Your task to perform on an android device: install app "Booking.com: Hotels and more" Image 0: 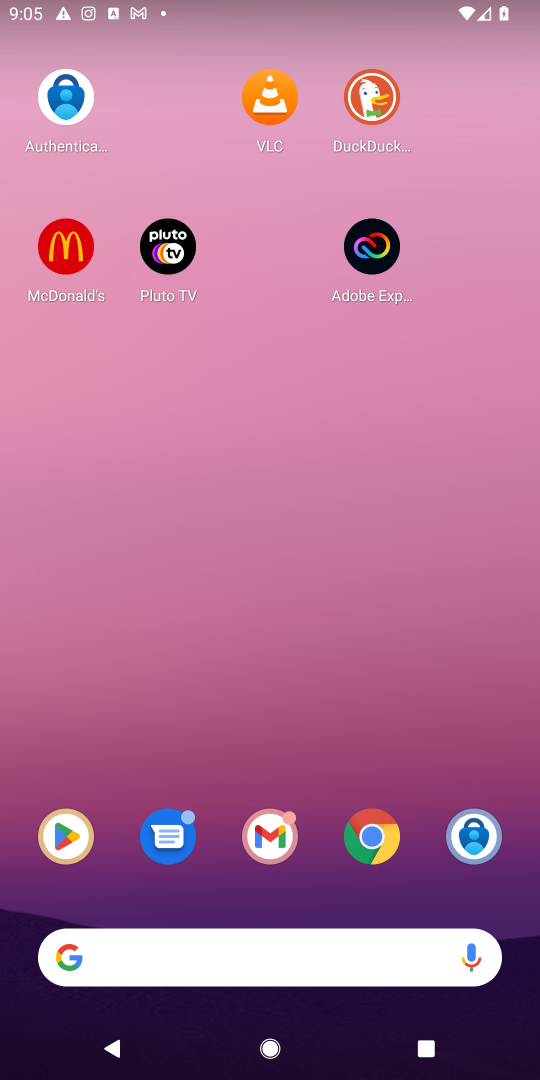
Step 0: click (67, 835)
Your task to perform on an android device: install app "Booking.com: Hotels and more" Image 1: 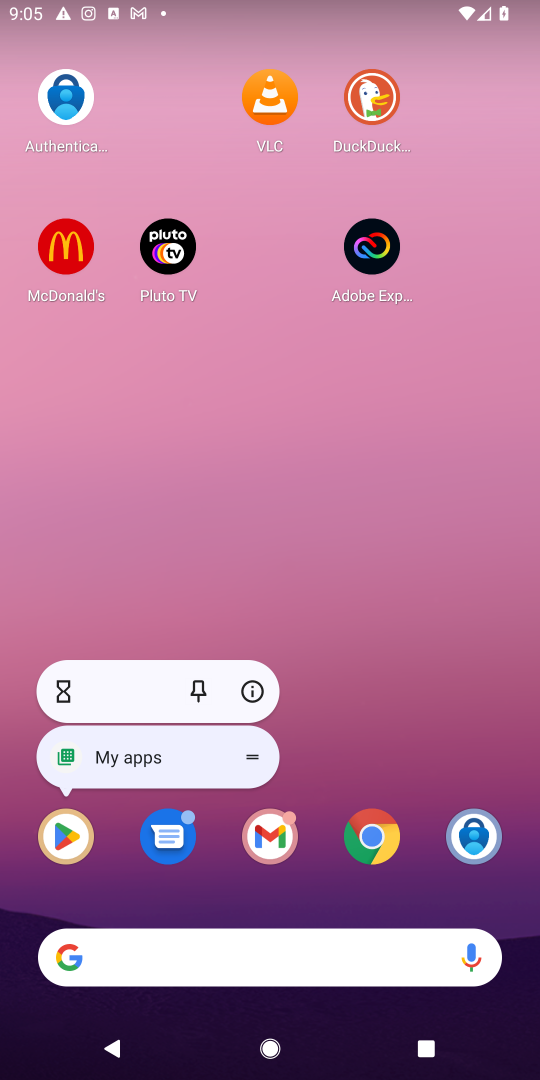
Step 1: click (67, 835)
Your task to perform on an android device: install app "Booking.com: Hotels and more" Image 2: 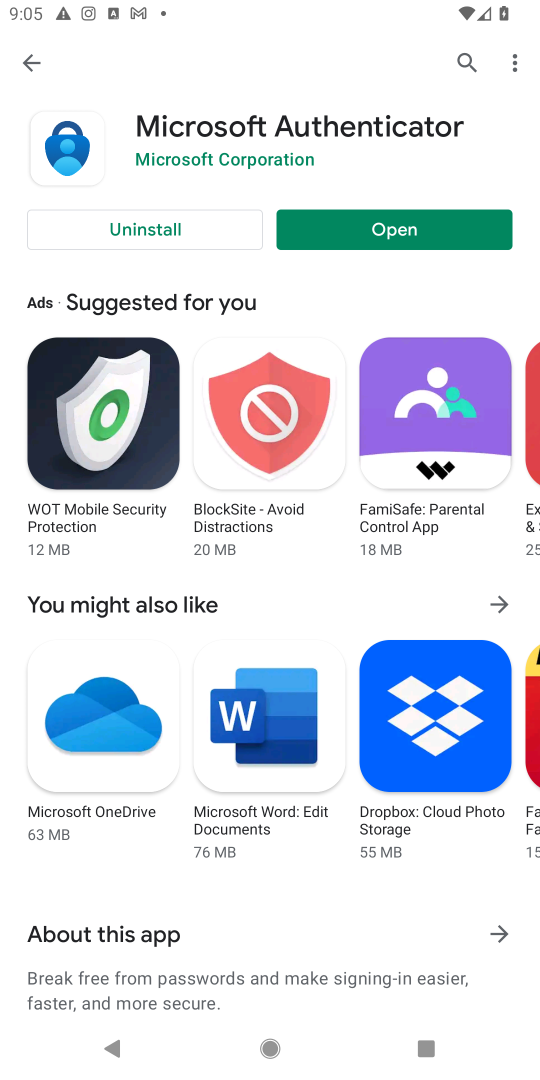
Step 2: click (464, 54)
Your task to perform on an android device: install app "Booking.com: Hotels and more" Image 3: 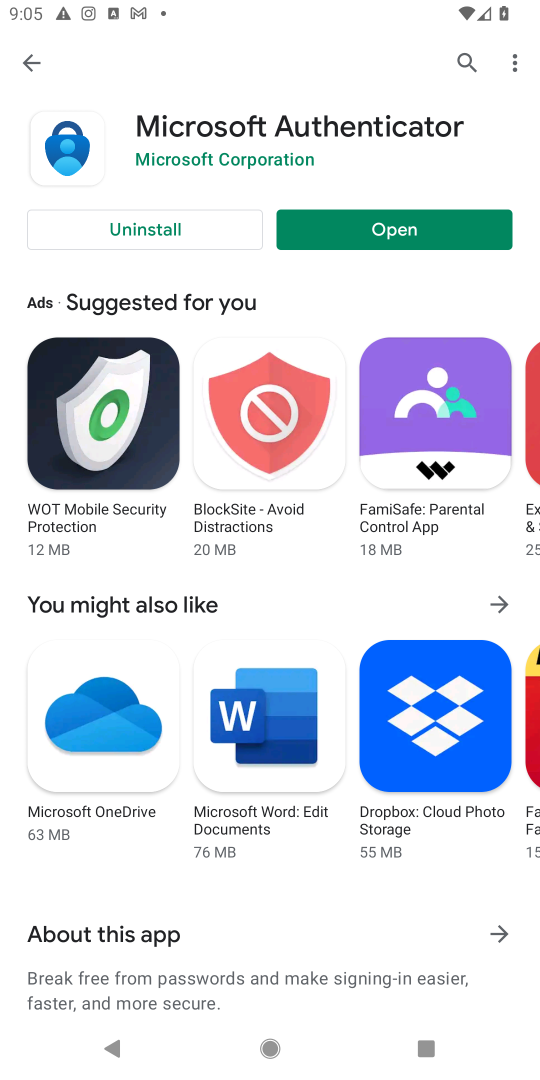
Step 3: click (464, 64)
Your task to perform on an android device: install app "Booking.com: Hotels and more" Image 4: 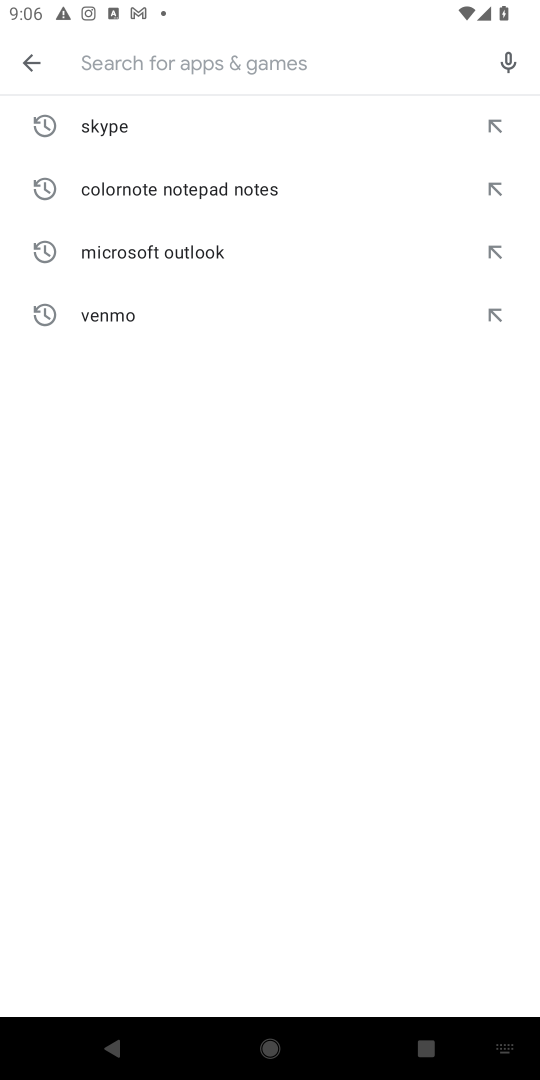
Step 4: type "Booking.com: Hotels and more"
Your task to perform on an android device: install app "Booking.com: Hotels and more" Image 5: 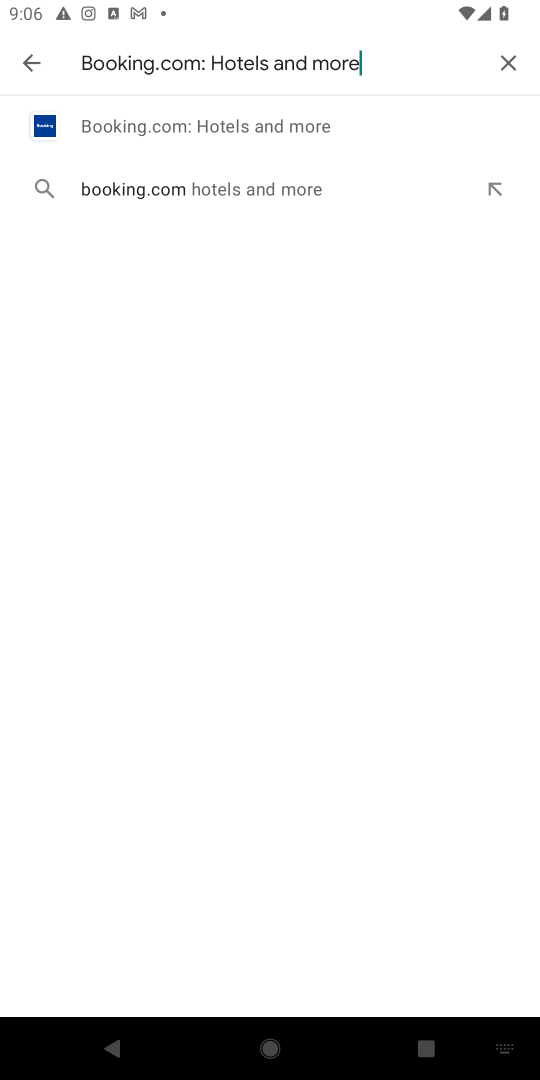
Step 5: click (186, 116)
Your task to perform on an android device: install app "Booking.com: Hotels and more" Image 6: 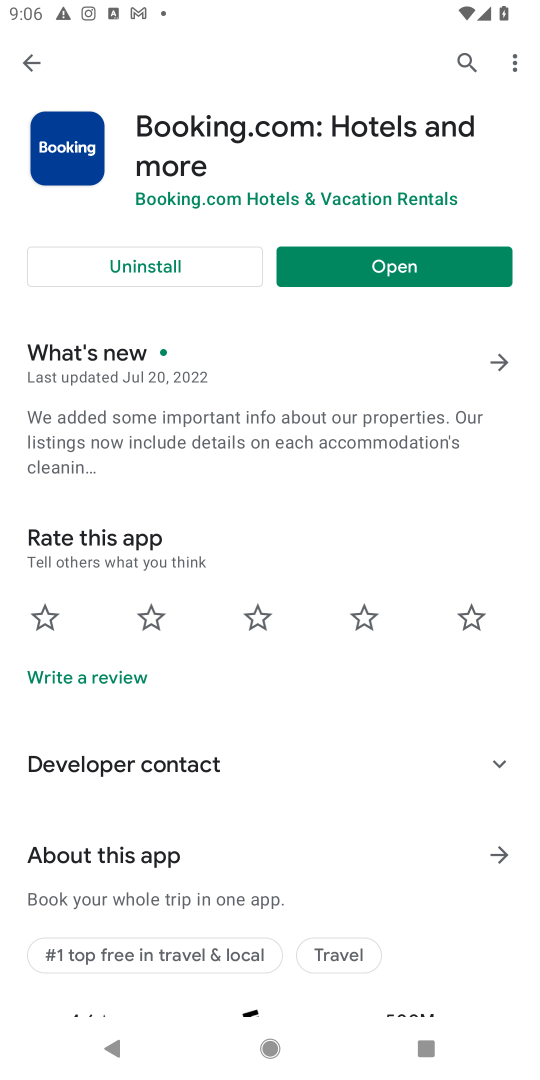
Step 6: task complete